Your task to perform on an android device: find which apps use the phone's location Image 0: 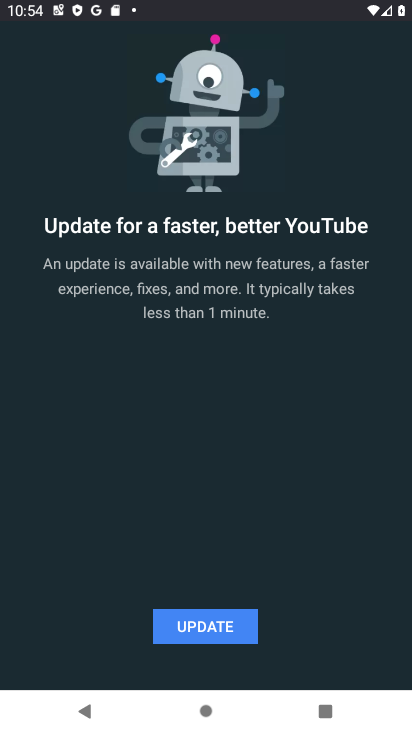
Step 0: press home button
Your task to perform on an android device: find which apps use the phone's location Image 1: 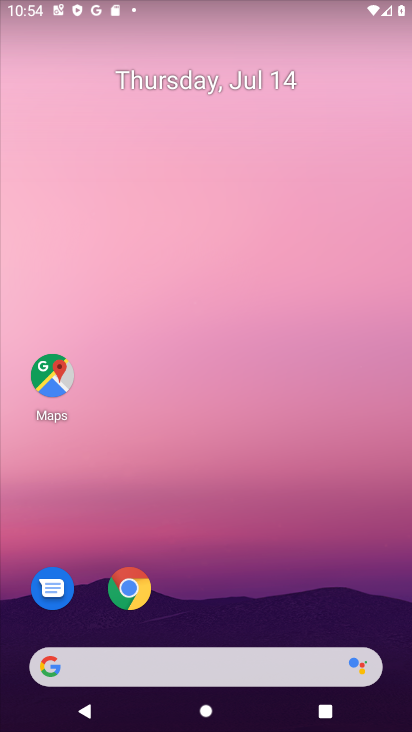
Step 1: drag from (327, 609) to (323, 115)
Your task to perform on an android device: find which apps use the phone's location Image 2: 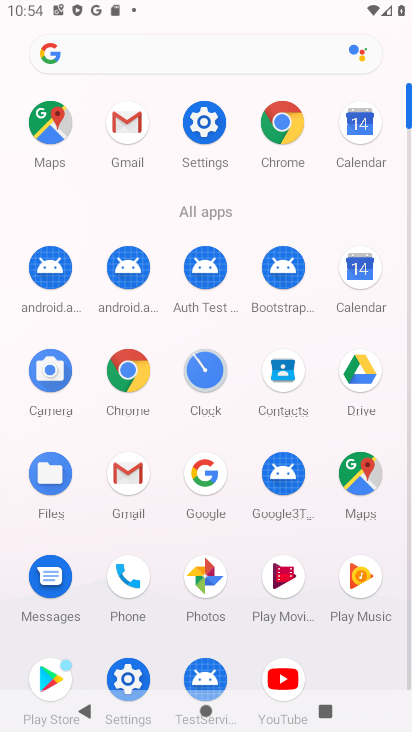
Step 2: click (212, 120)
Your task to perform on an android device: find which apps use the phone's location Image 3: 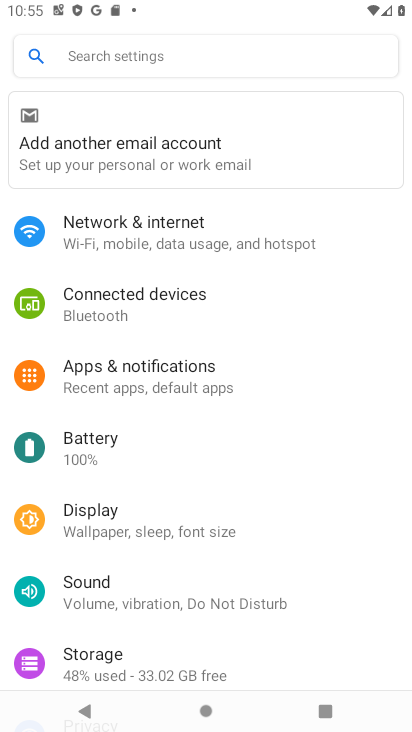
Step 3: press back button
Your task to perform on an android device: find which apps use the phone's location Image 4: 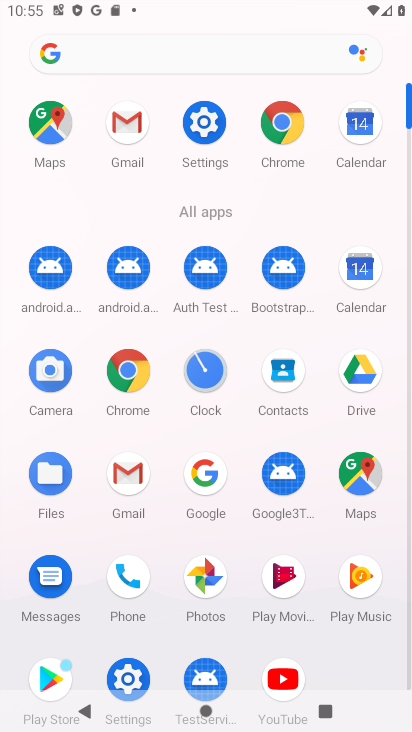
Step 4: click (122, 596)
Your task to perform on an android device: find which apps use the phone's location Image 5: 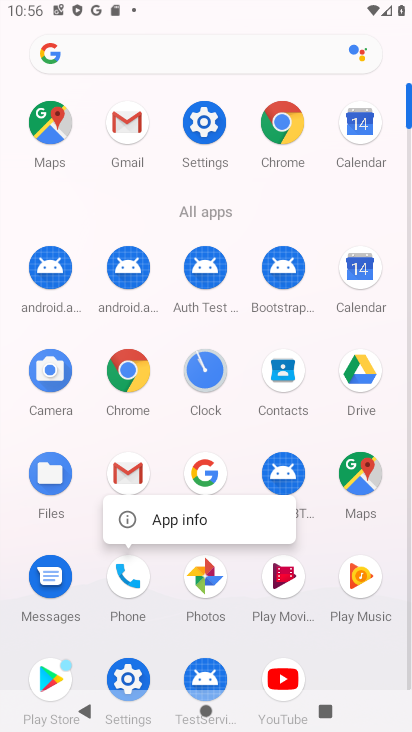
Step 5: click (234, 516)
Your task to perform on an android device: find which apps use the phone's location Image 6: 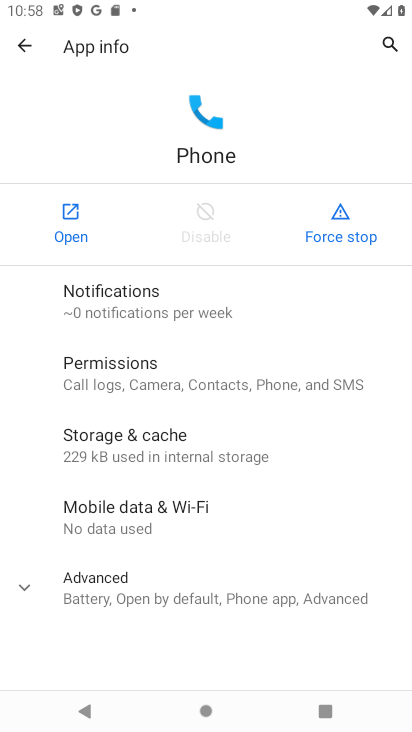
Step 6: click (119, 367)
Your task to perform on an android device: find which apps use the phone's location Image 7: 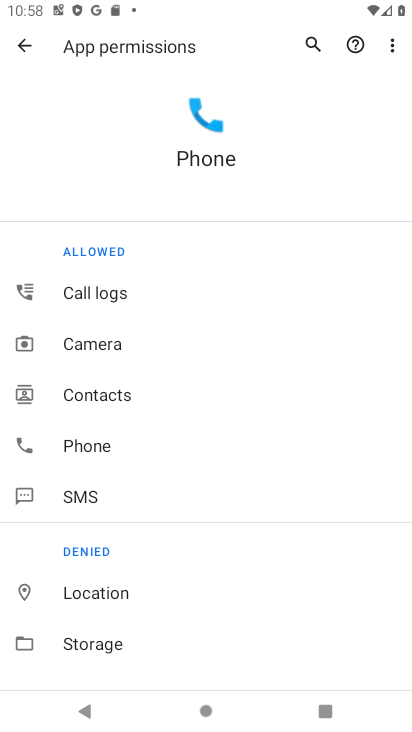
Step 7: click (80, 594)
Your task to perform on an android device: find which apps use the phone's location Image 8: 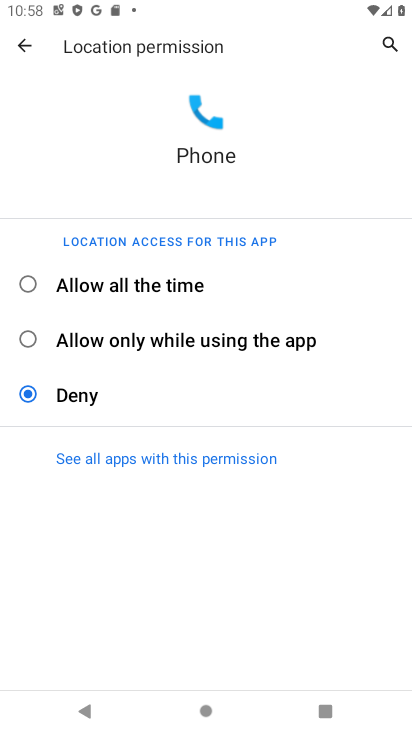
Step 8: click (104, 284)
Your task to perform on an android device: find which apps use the phone's location Image 9: 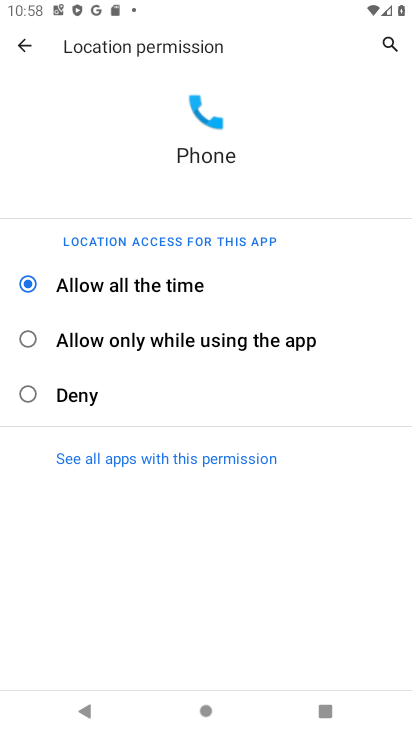
Step 9: click (201, 464)
Your task to perform on an android device: find which apps use the phone's location Image 10: 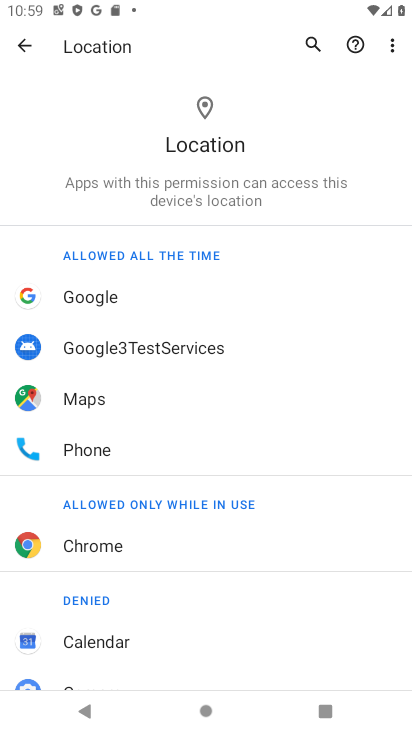
Step 10: task complete